Your task to perform on an android device: What's on my calendar today? Image 0: 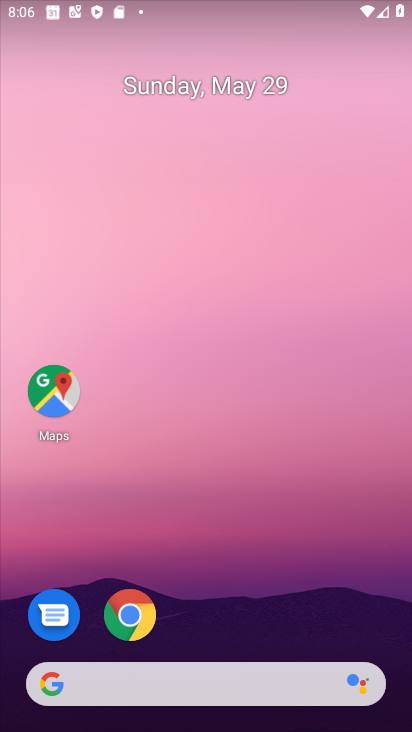
Step 0: drag from (307, 615) to (335, 191)
Your task to perform on an android device: What's on my calendar today? Image 1: 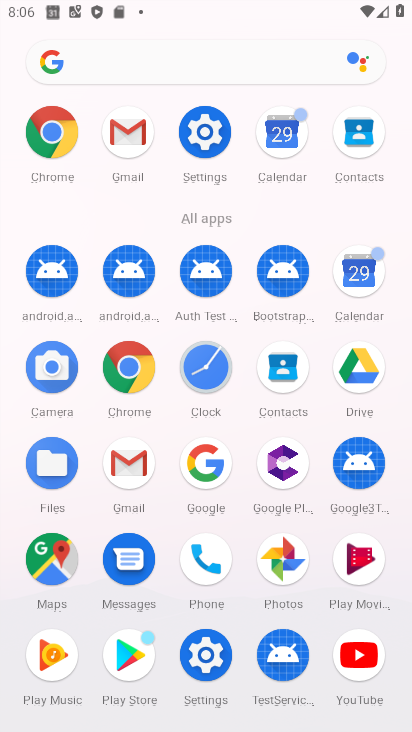
Step 1: click (363, 270)
Your task to perform on an android device: What's on my calendar today? Image 2: 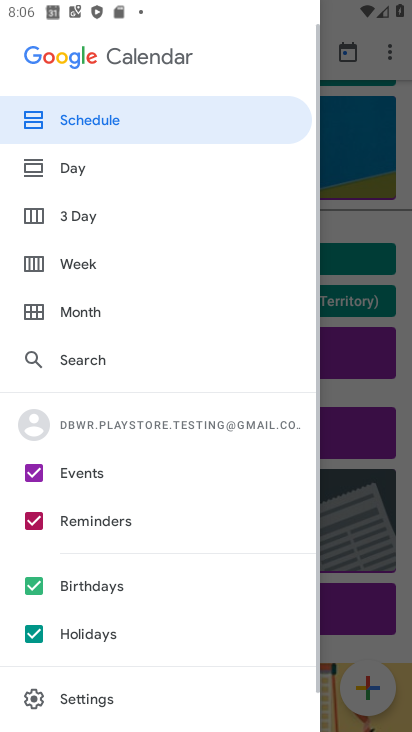
Step 2: task complete